Your task to perform on an android device: turn off location Image 0: 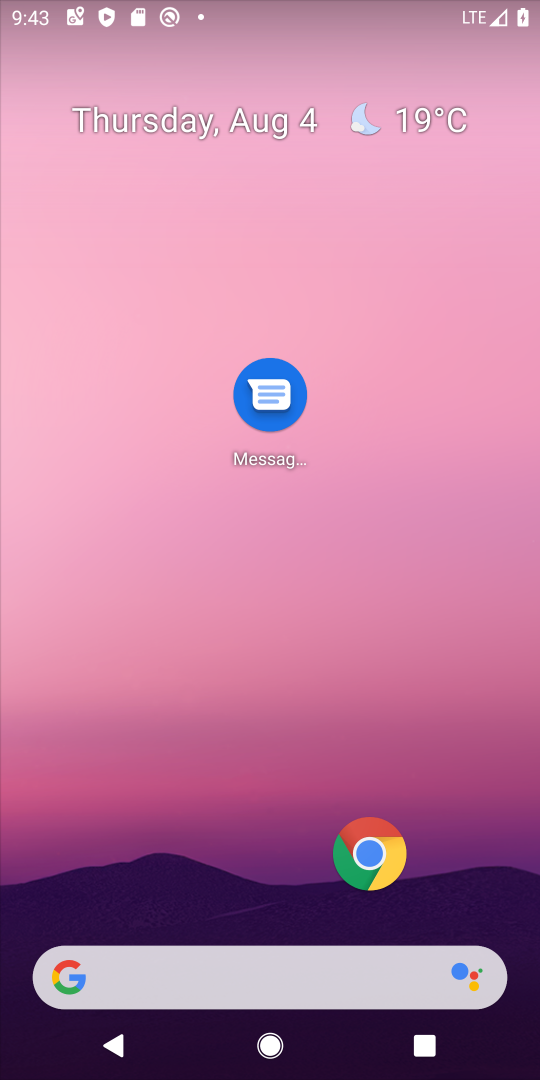
Step 0: drag from (266, 864) to (72, 108)
Your task to perform on an android device: turn off location Image 1: 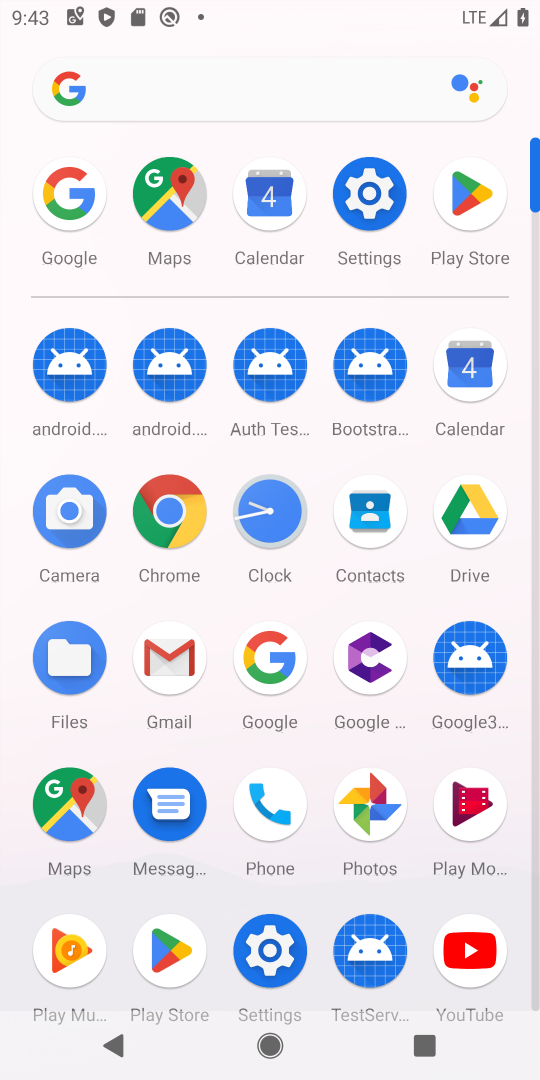
Step 1: click (355, 205)
Your task to perform on an android device: turn off location Image 2: 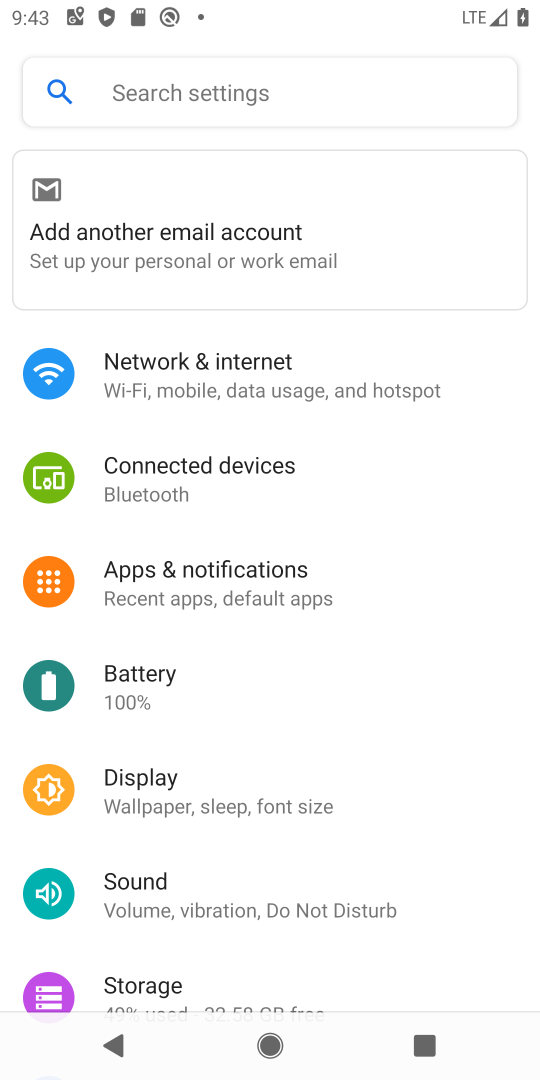
Step 2: drag from (138, 930) to (138, 384)
Your task to perform on an android device: turn off location Image 3: 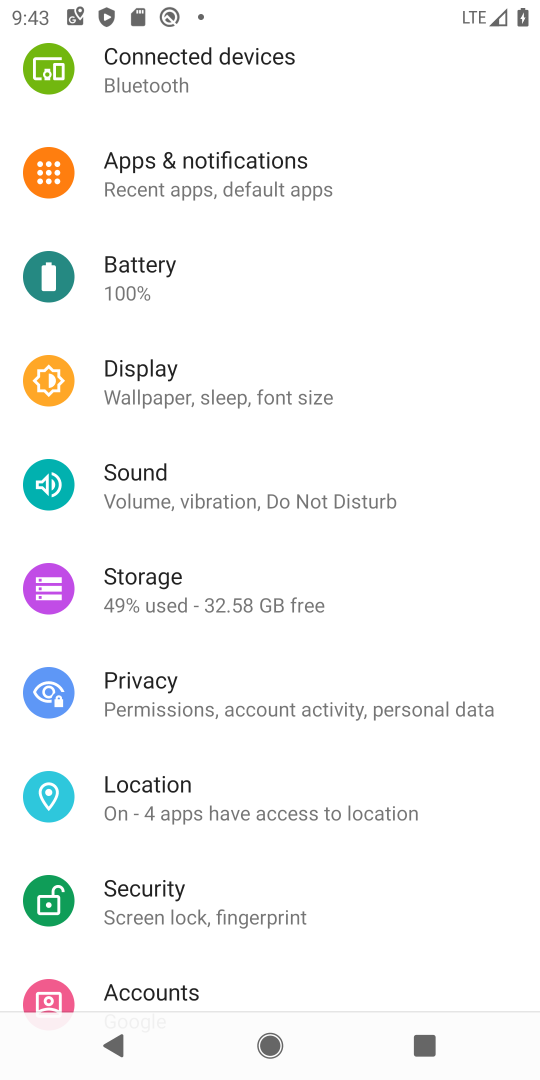
Step 3: click (225, 804)
Your task to perform on an android device: turn off location Image 4: 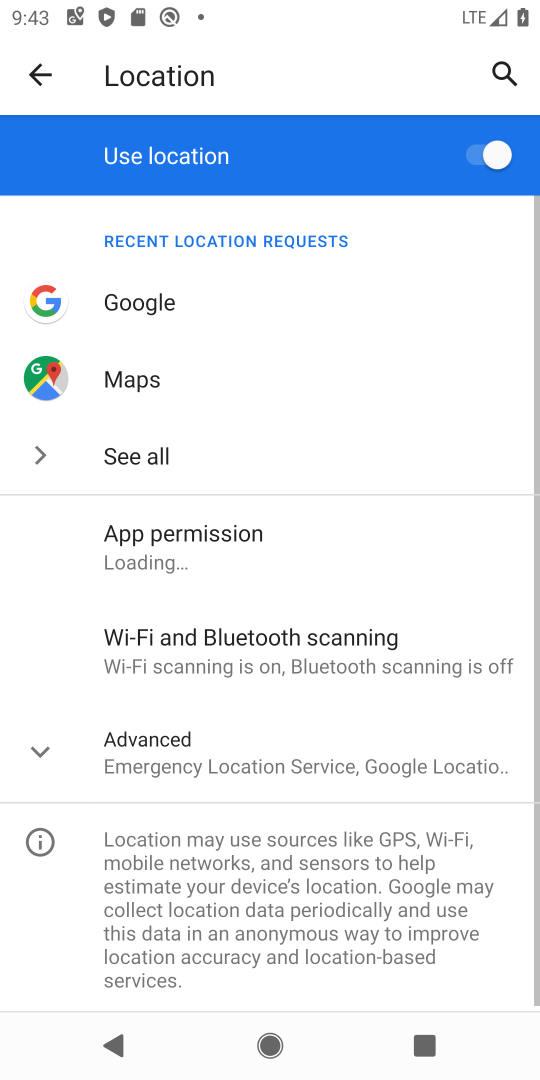
Step 4: click (473, 158)
Your task to perform on an android device: turn off location Image 5: 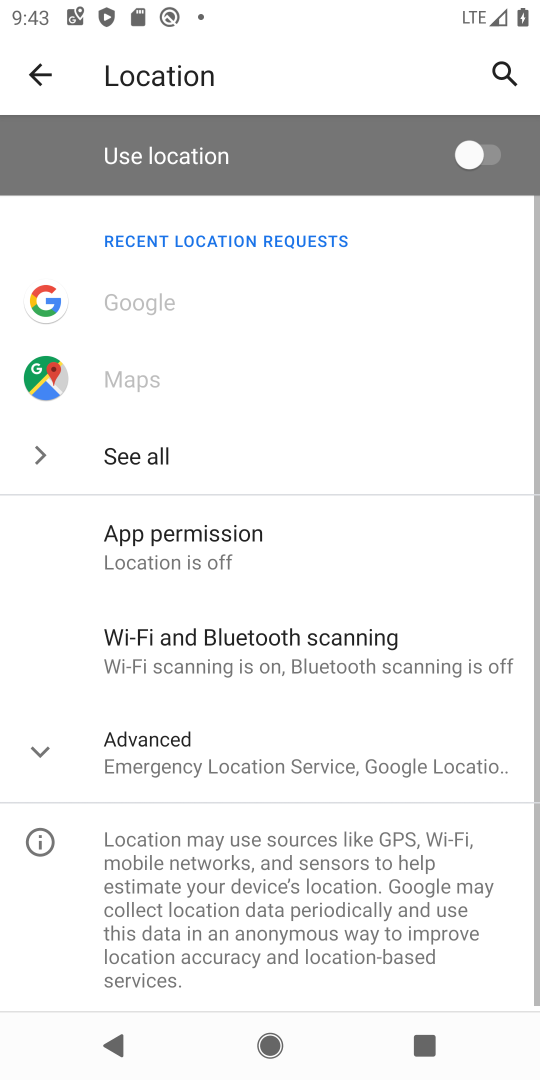
Step 5: task complete